Your task to perform on an android device: toggle improve location accuracy Image 0: 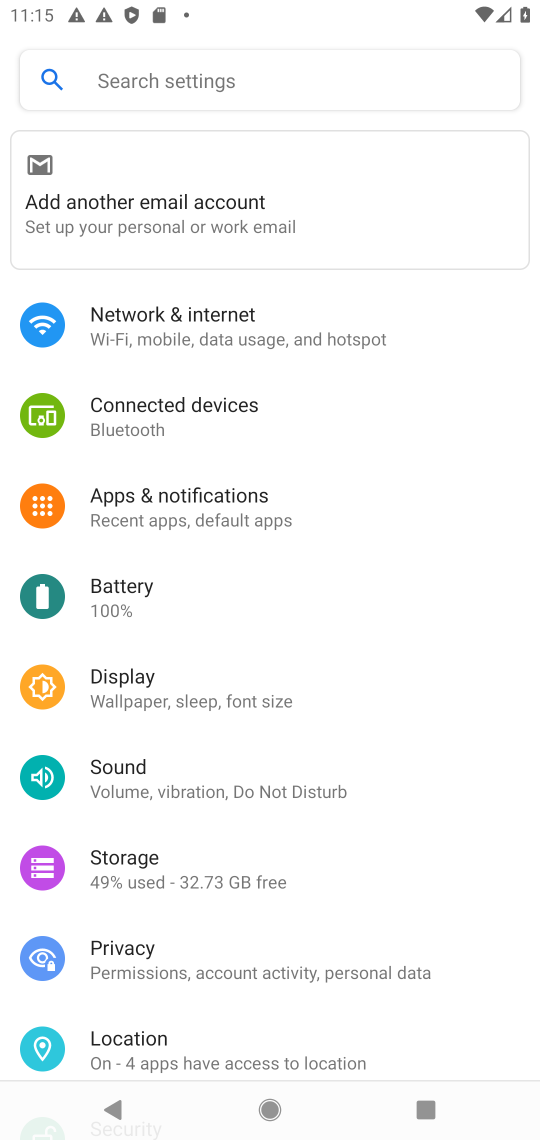
Step 0: click (132, 1039)
Your task to perform on an android device: toggle improve location accuracy Image 1: 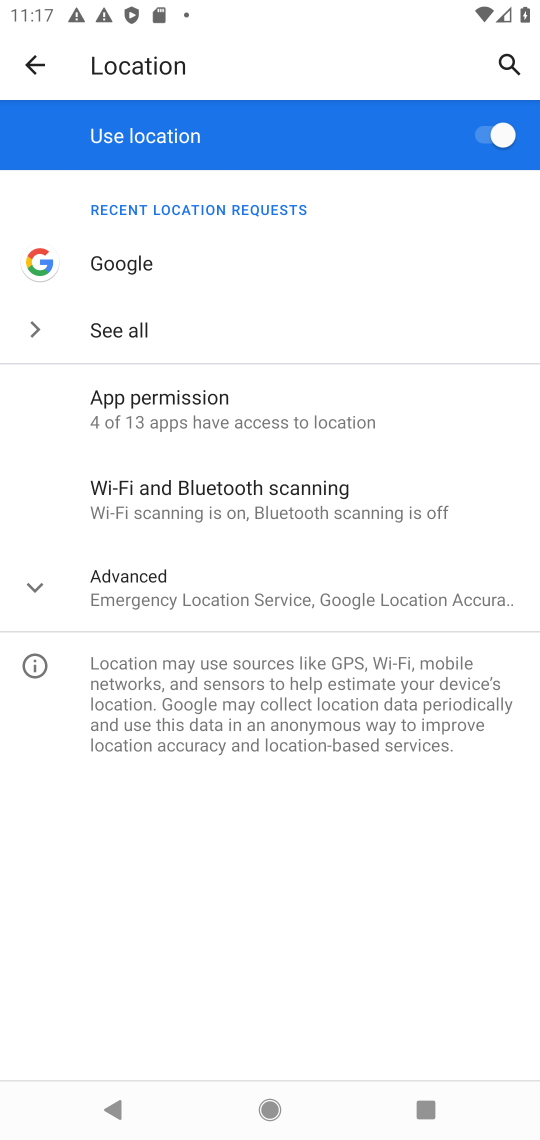
Step 1: click (27, 589)
Your task to perform on an android device: toggle improve location accuracy Image 2: 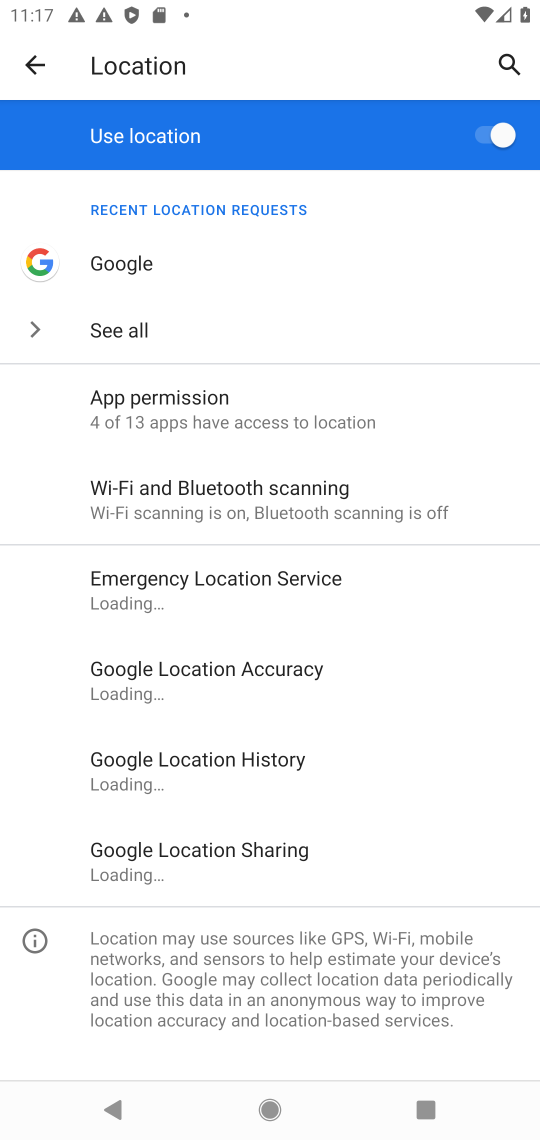
Step 2: click (266, 680)
Your task to perform on an android device: toggle improve location accuracy Image 3: 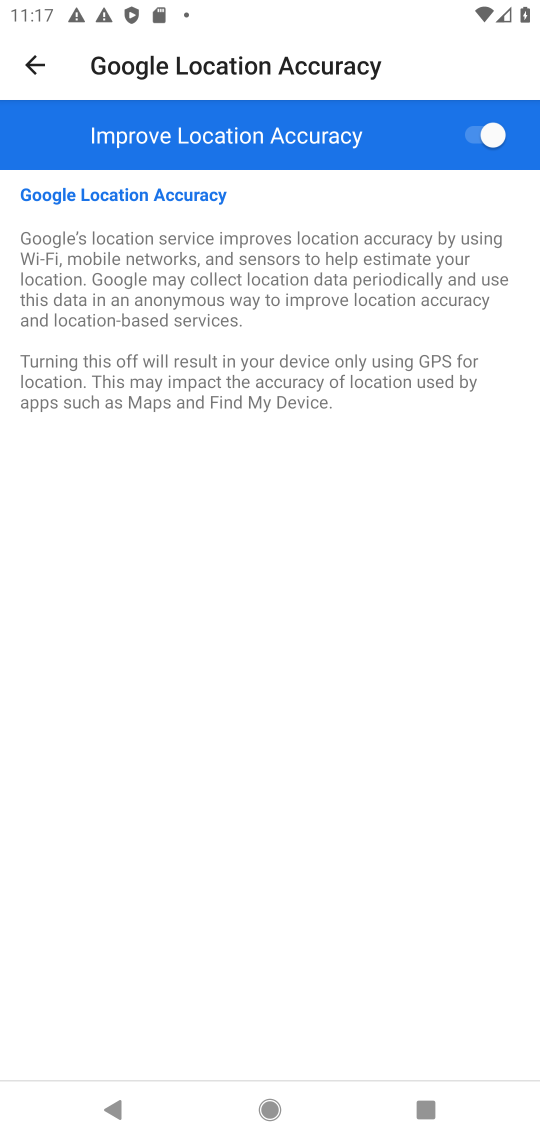
Step 3: click (485, 133)
Your task to perform on an android device: toggle improve location accuracy Image 4: 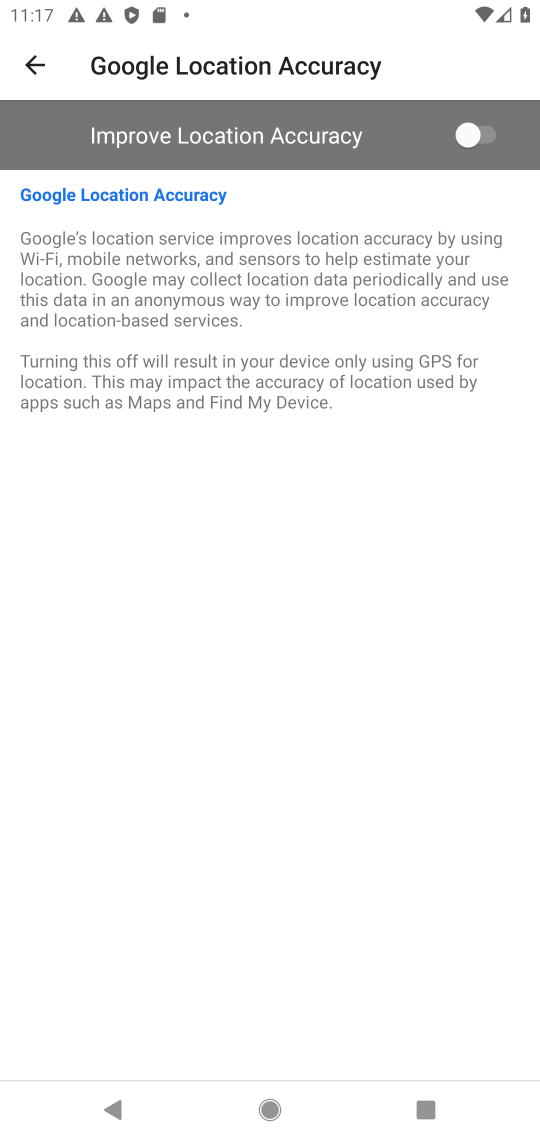
Step 4: task complete